Your task to perform on an android device: Open maps Image 0: 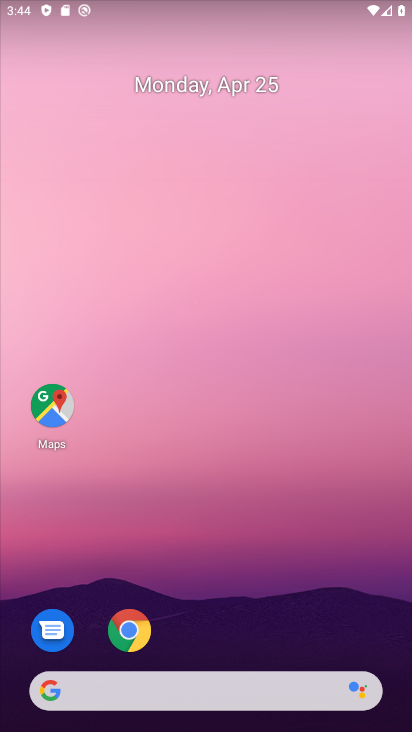
Step 0: drag from (297, 588) to (352, 47)
Your task to perform on an android device: Open maps Image 1: 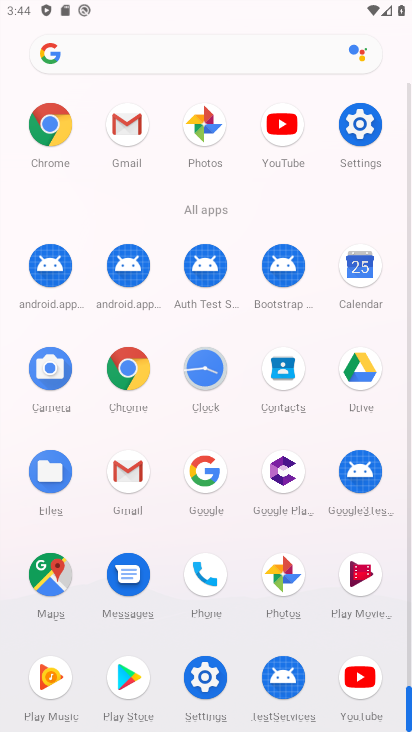
Step 1: click (60, 562)
Your task to perform on an android device: Open maps Image 2: 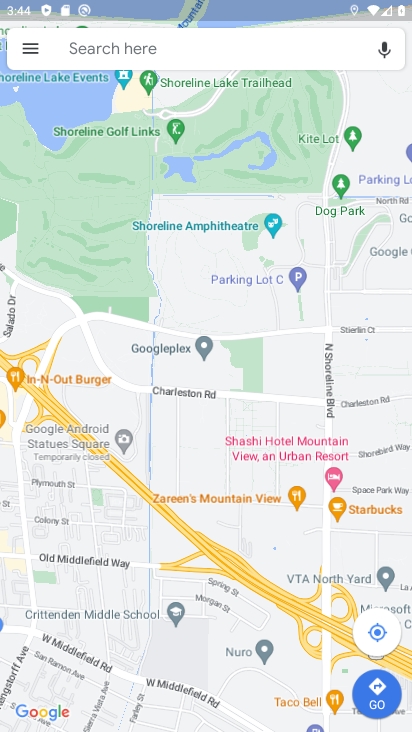
Step 2: task complete